Your task to perform on an android device: Open internet settings Image 0: 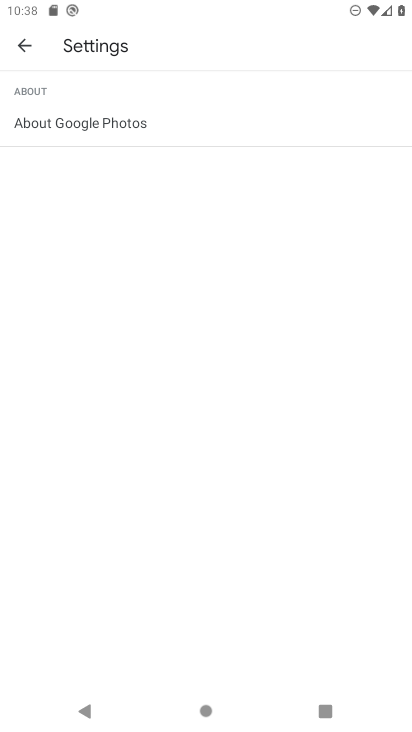
Step 0: press home button
Your task to perform on an android device: Open internet settings Image 1: 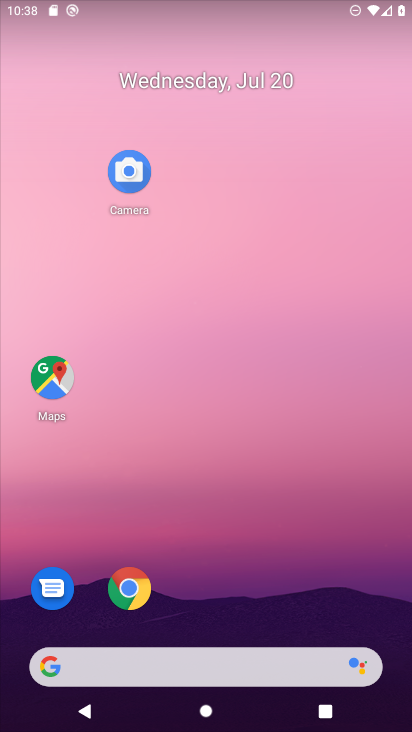
Step 1: drag from (311, 570) to (242, 4)
Your task to perform on an android device: Open internet settings Image 2: 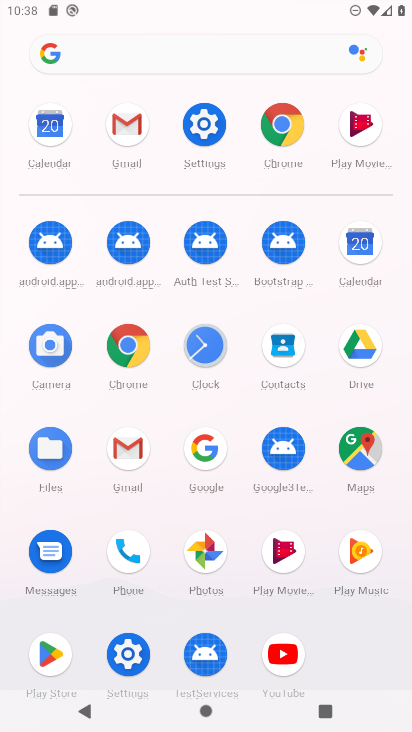
Step 2: click (213, 130)
Your task to perform on an android device: Open internet settings Image 3: 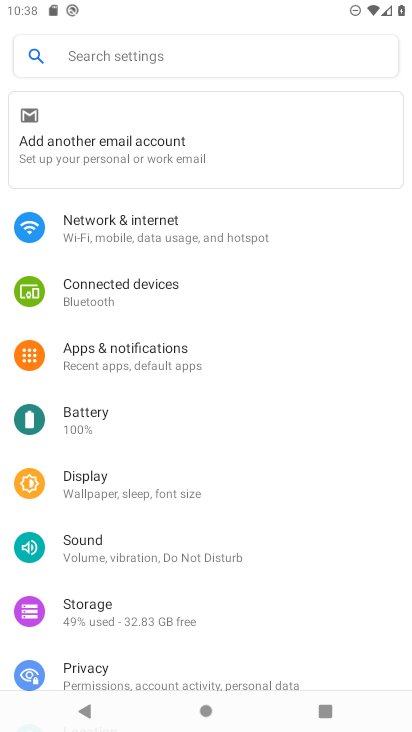
Step 3: drag from (88, 523) to (73, 256)
Your task to perform on an android device: Open internet settings Image 4: 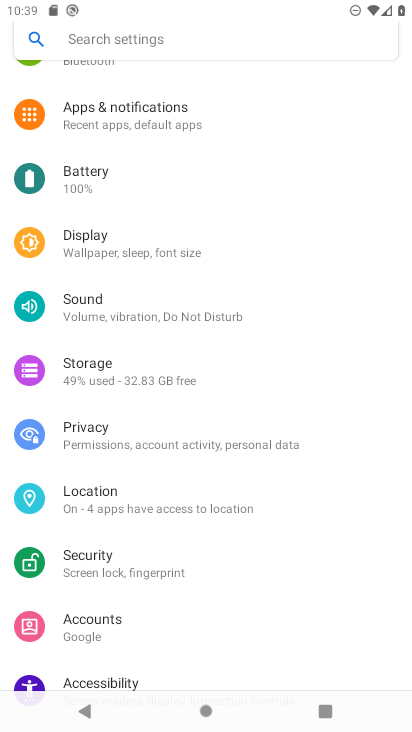
Step 4: drag from (66, 83) to (69, 181)
Your task to perform on an android device: Open internet settings Image 5: 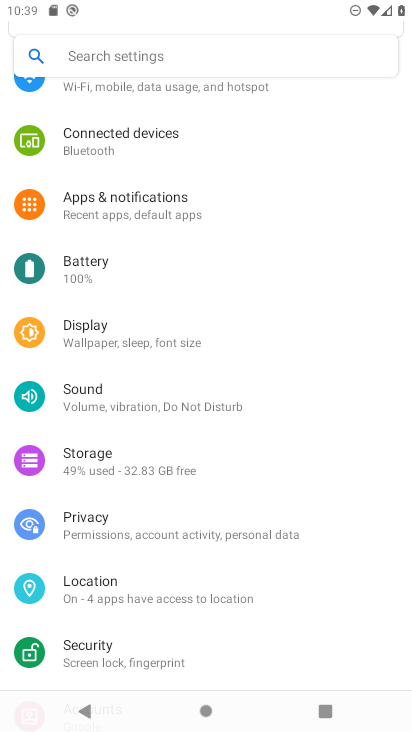
Step 5: click (76, 90)
Your task to perform on an android device: Open internet settings Image 6: 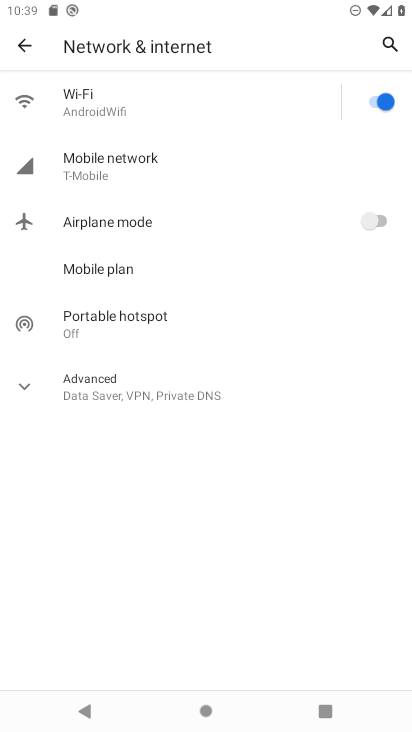
Step 6: task complete